Your task to perform on an android device: Go to wifi settings Image 0: 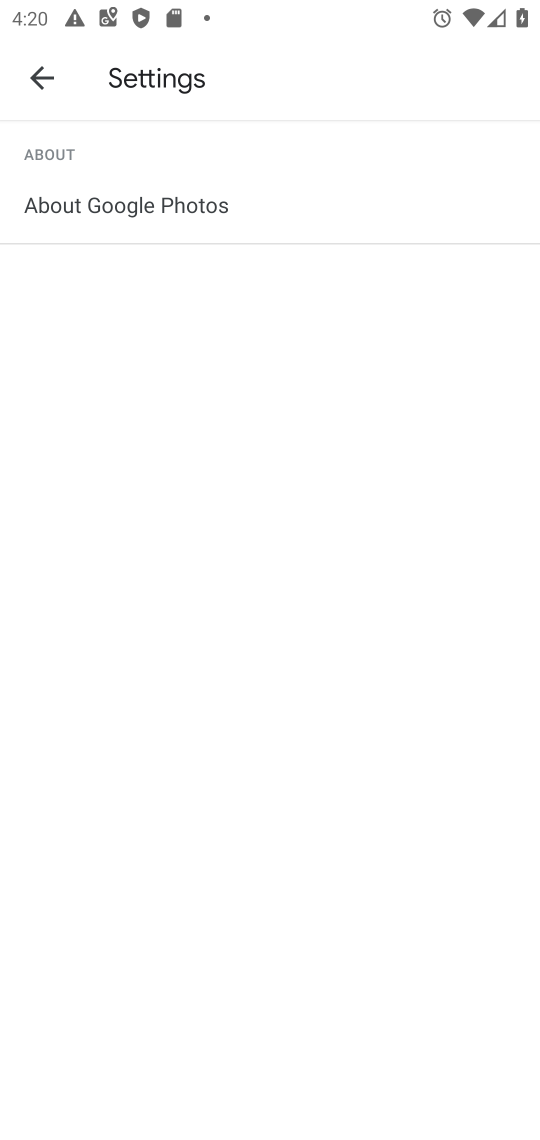
Step 0: press home button
Your task to perform on an android device: Go to wifi settings Image 1: 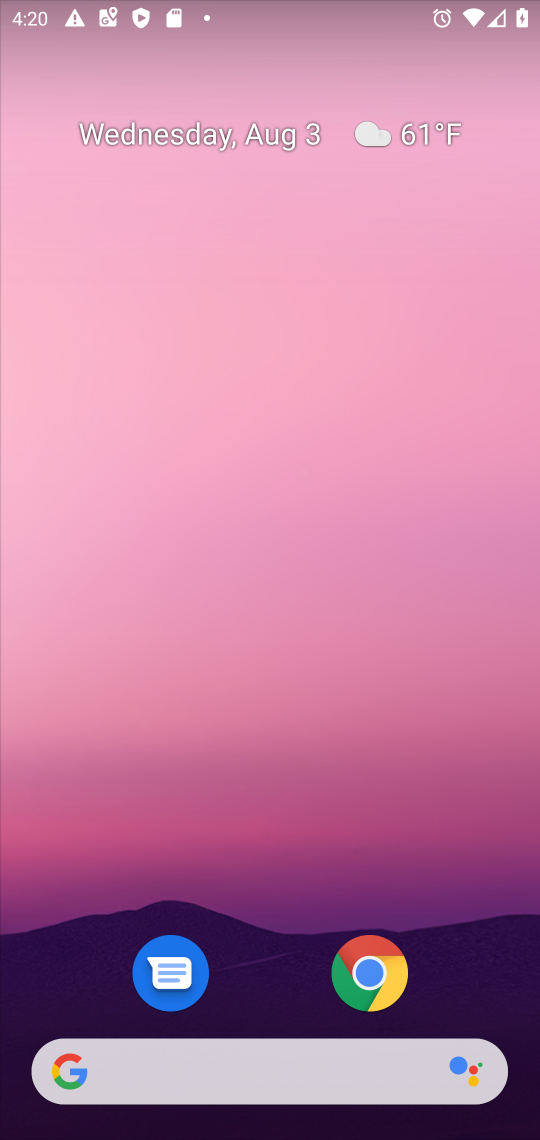
Step 1: drag from (284, 835) to (422, 0)
Your task to perform on an android device: Go to wifi settings Image 2: 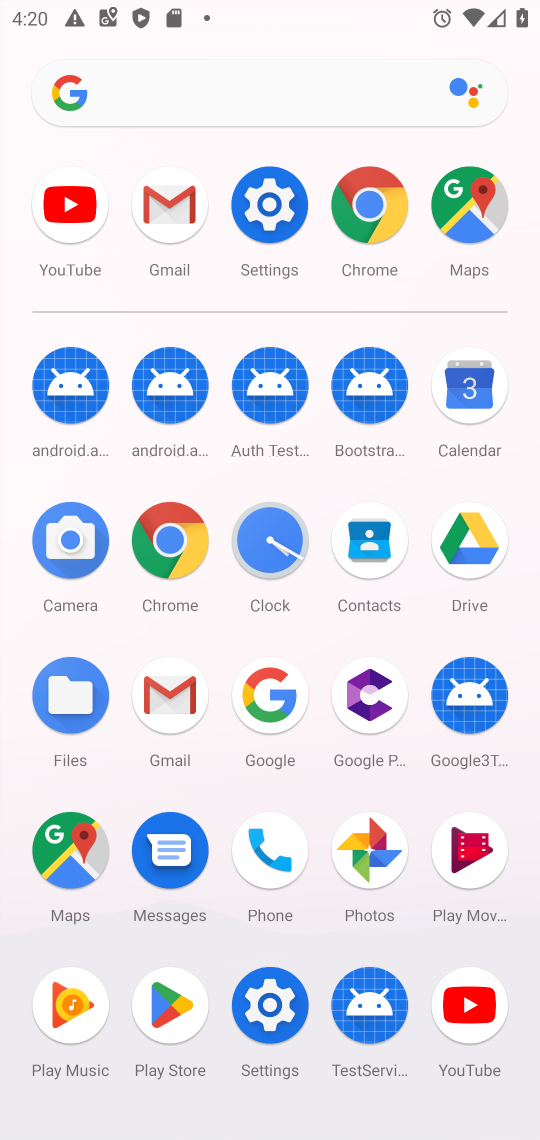
Step 2: click (281, 208)
Your task to perform on an android device: Go to wifi settings Image 3: 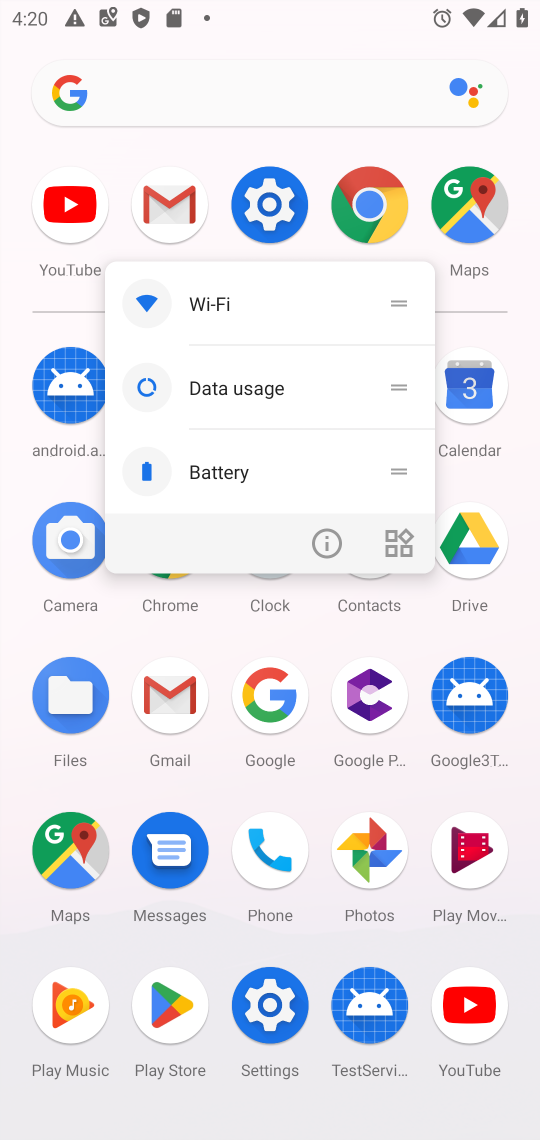
Step 3: click (281, 213)
Your task to perform on an android device: Go to wifi settings Image 4: 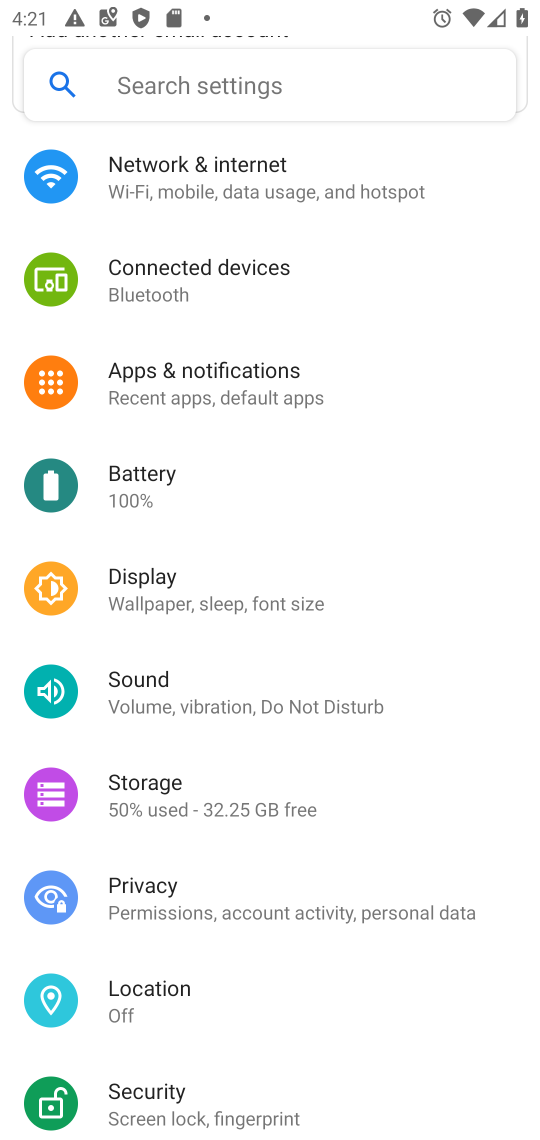
Step 4: click (288, 185)
Your task to perform on an android device: Go to wifi settings Image 5: 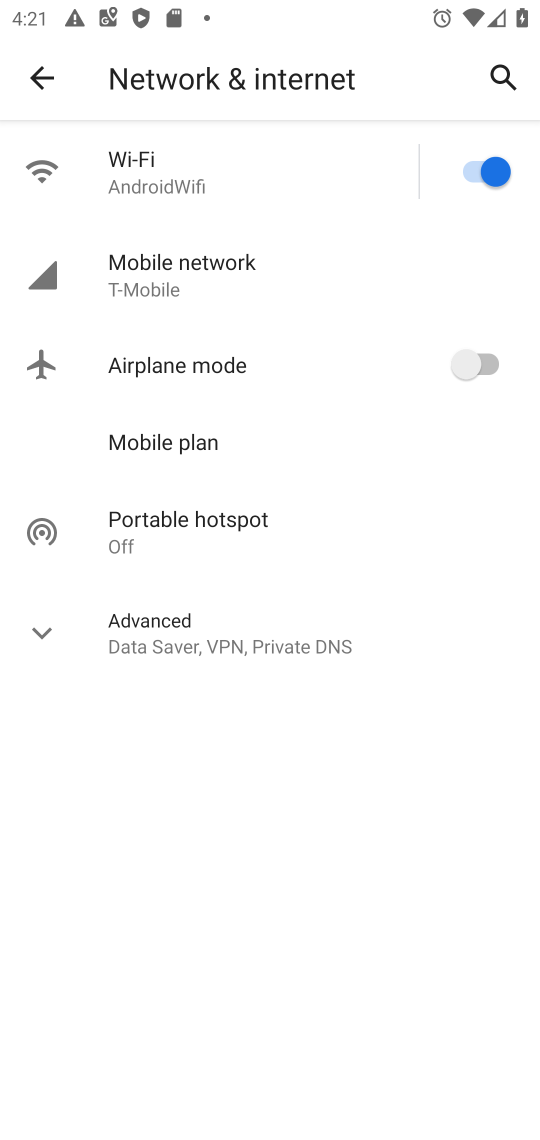
Step 5: click (170, 148)
Your task to perform on an android device: Go to wifi settings Image 6: 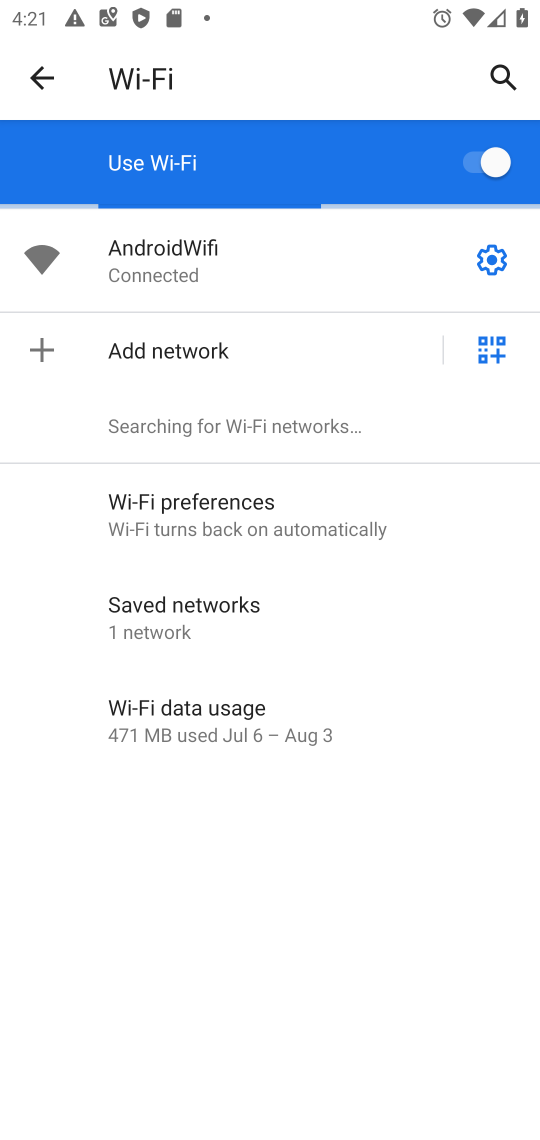
Step 6: task complete